Your task to perform on an android device: see creations saved in the google photos Image 0: 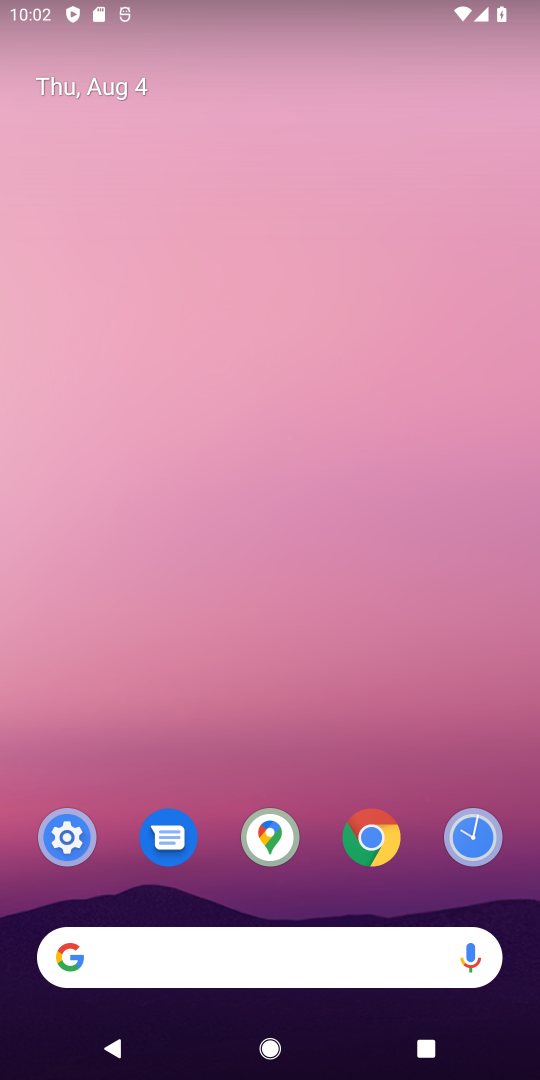
Step 0: drag from (315, 829) to (169, 21)
Your task to perform on an android device: see creations saved in the google photos Image 1: 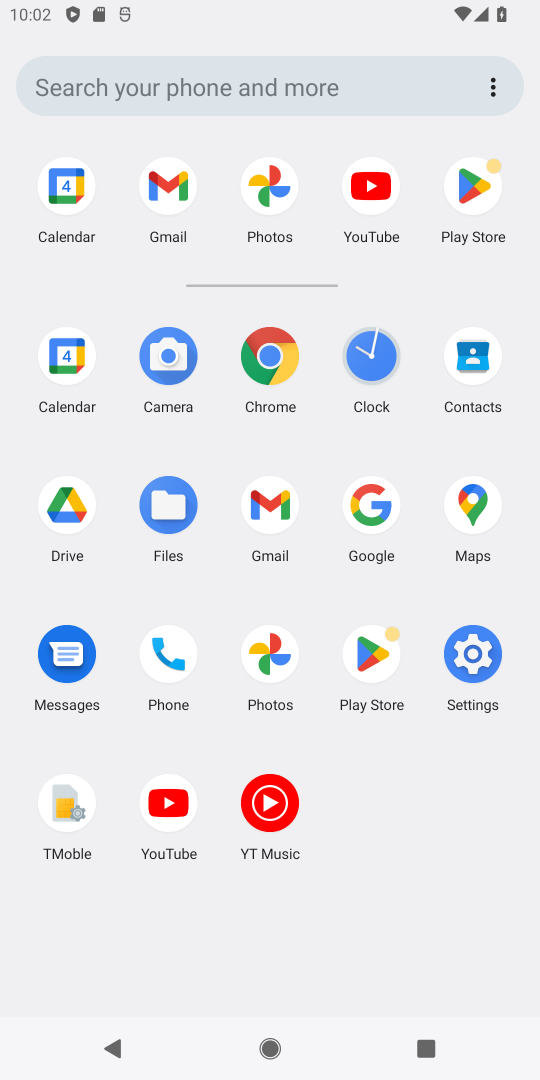
Step 1: click (278, 654)
Your task to perform on an android device: see creations saved in the google photos Image 2: 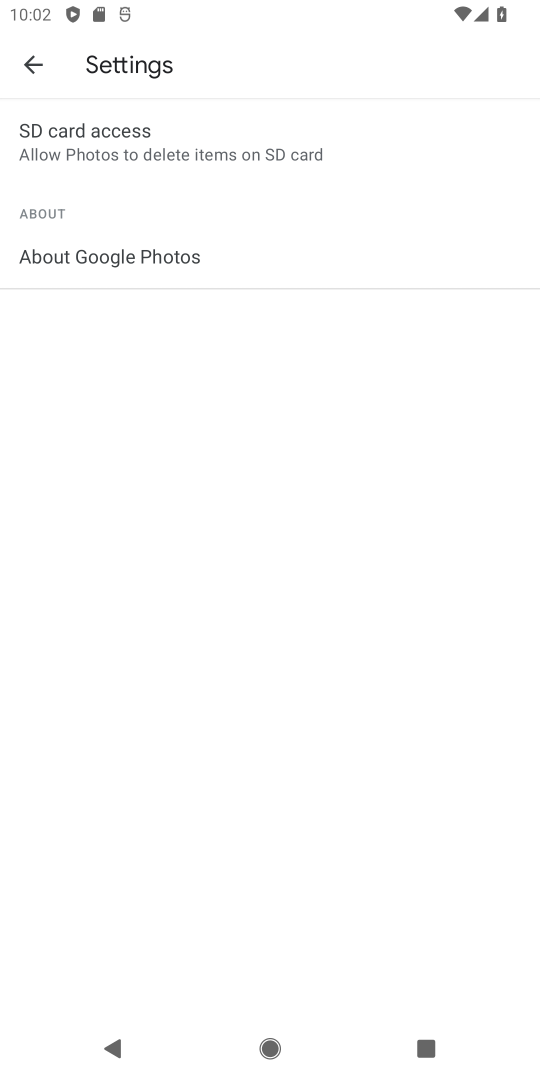
Step 2: press back button
Your task to perform on an android device: see creations saved in the google photos Image 3: 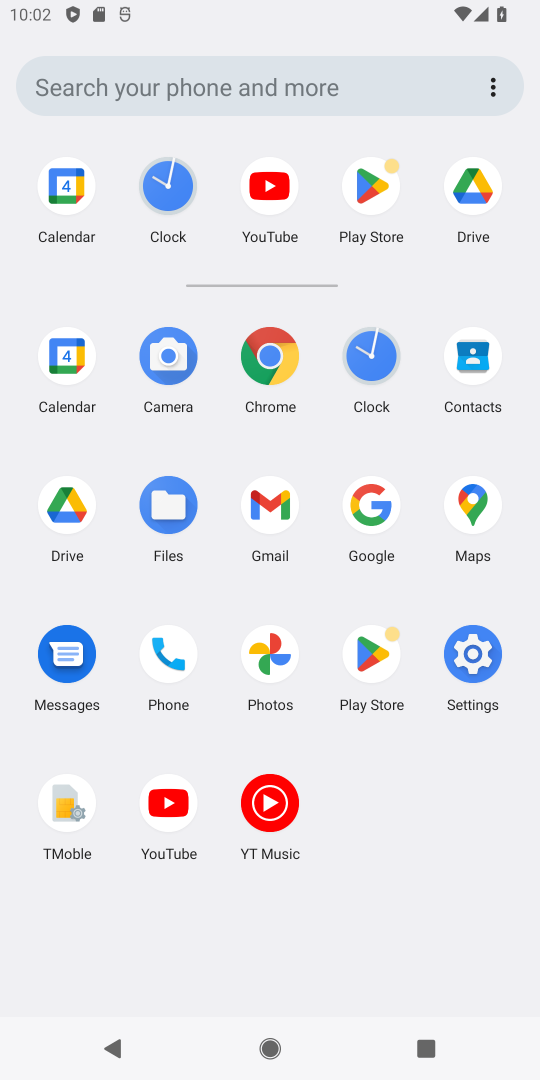
Step 3: click (268, 667)
Your task to perform on an android device: see creations saved in the google photos Image 4: 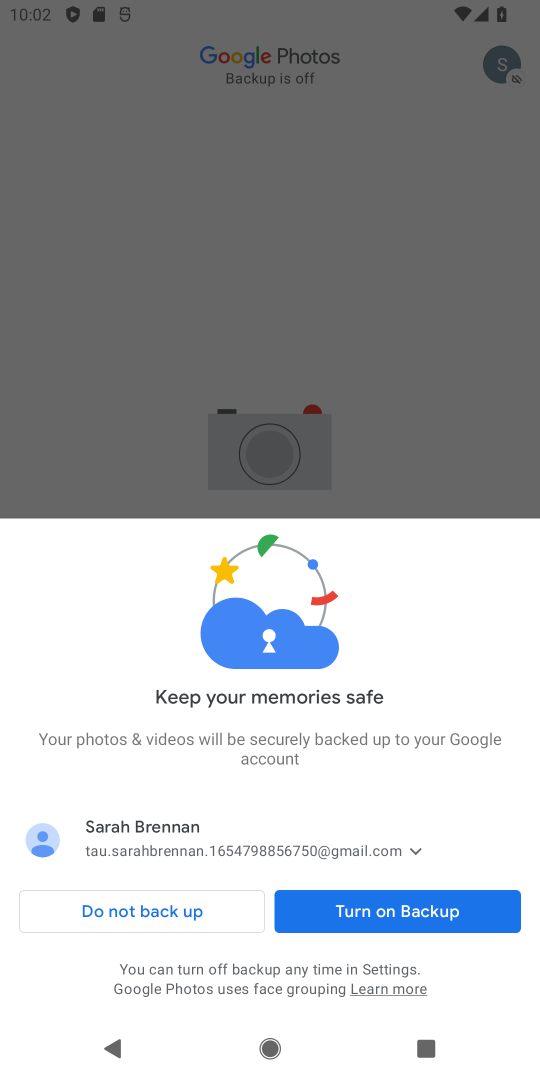
Step 4: click (462, 906)
Your task to perform on an android device: see creations saved in the google photos Image 5: 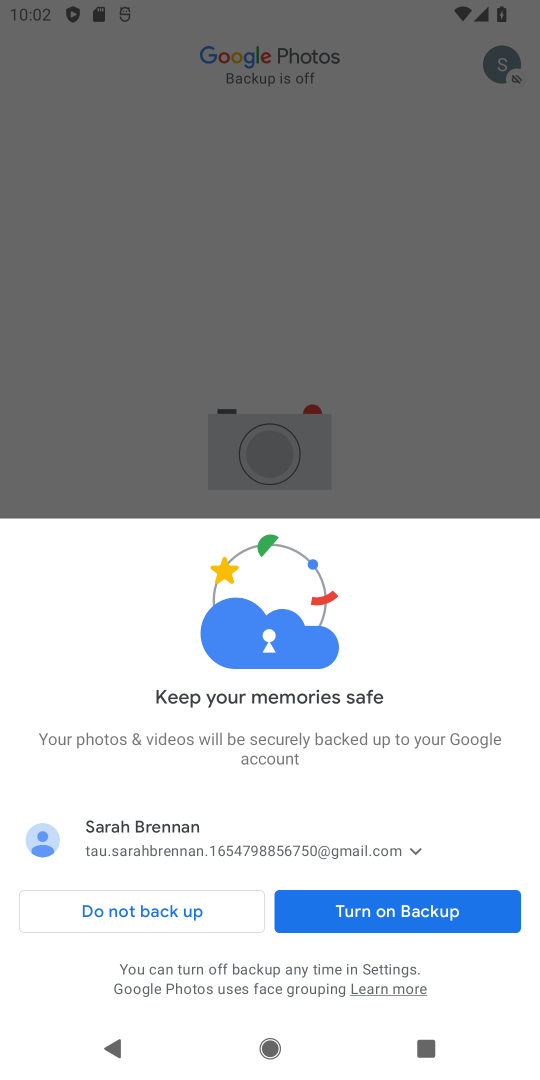
Step 5: click (418, 913)
Your task to perform on an android device: see creations saved in the google photos Image 6: 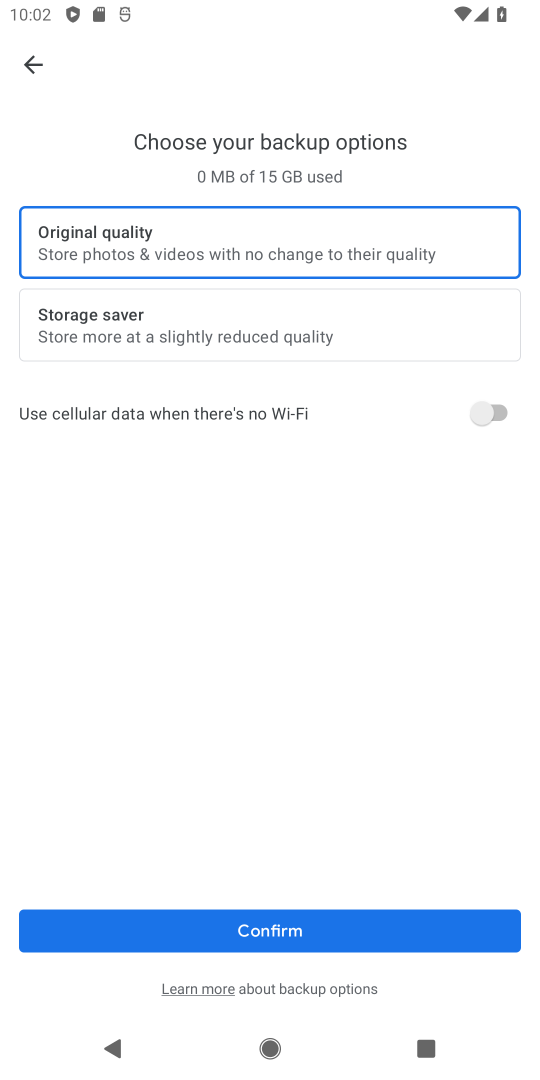
Step 6: click (257, 926)
Your task to perform on an android device: see creations saved in the google photos Image 7: 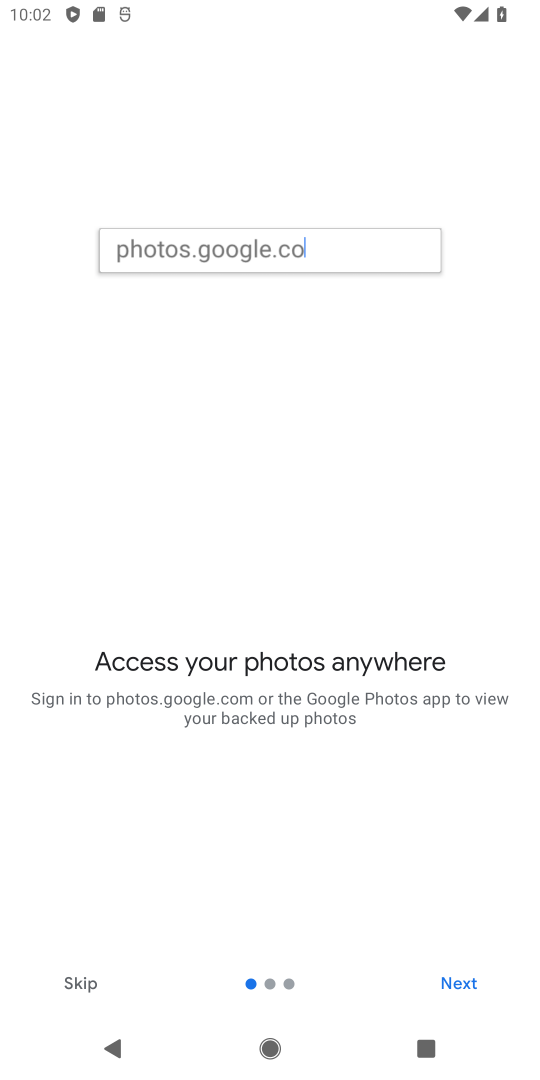
Step 7: click (467, 983)
Your task to perform on an android device: see creations saved in the google photos Image 8: 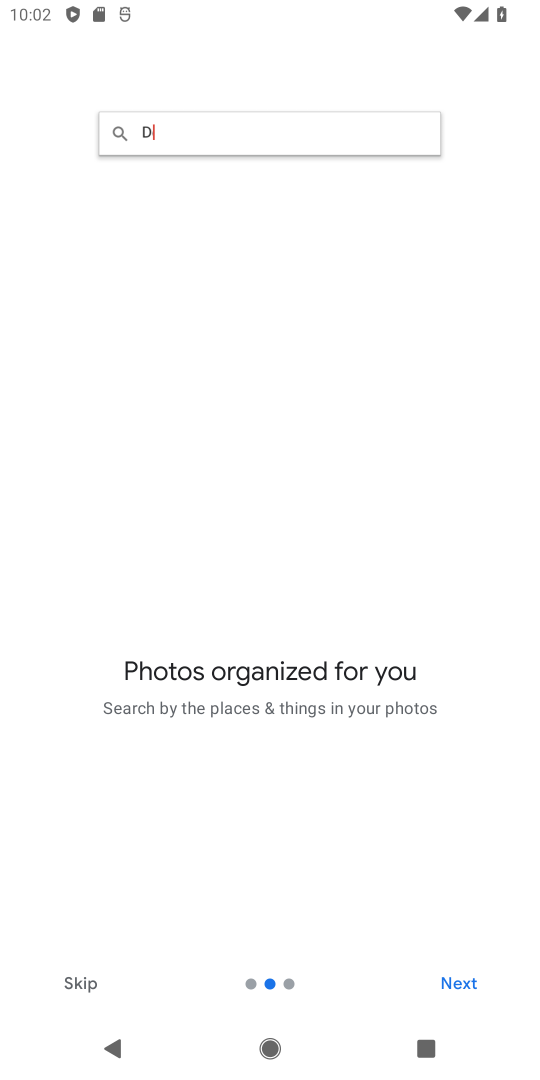
Step 8: click (467, 983)
Your task to perform on an android device: see creations saved in the google photos Image 9: 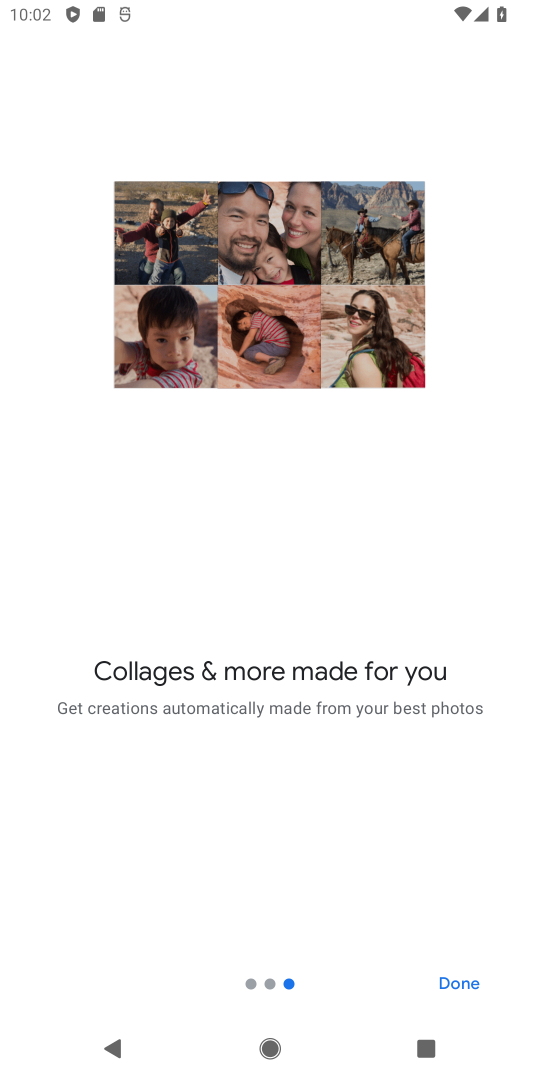
Step 9: click (467, 983)
Your task to perform on an android device: see creations saved in the google photos Image 10: 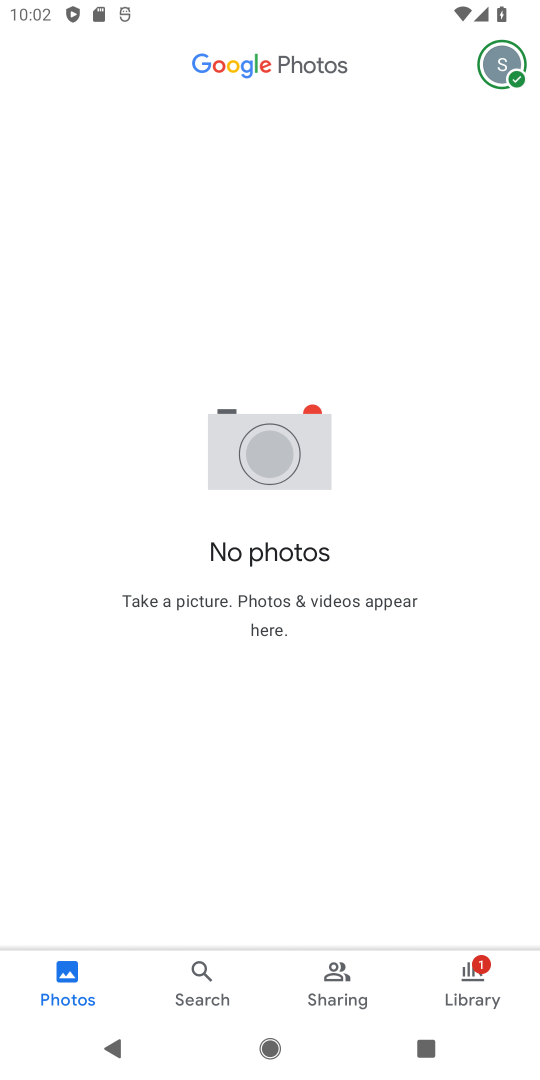
Step 10: click (185, 979)
Your task to perform on an android device: see creations saved in the google photos Image 11: 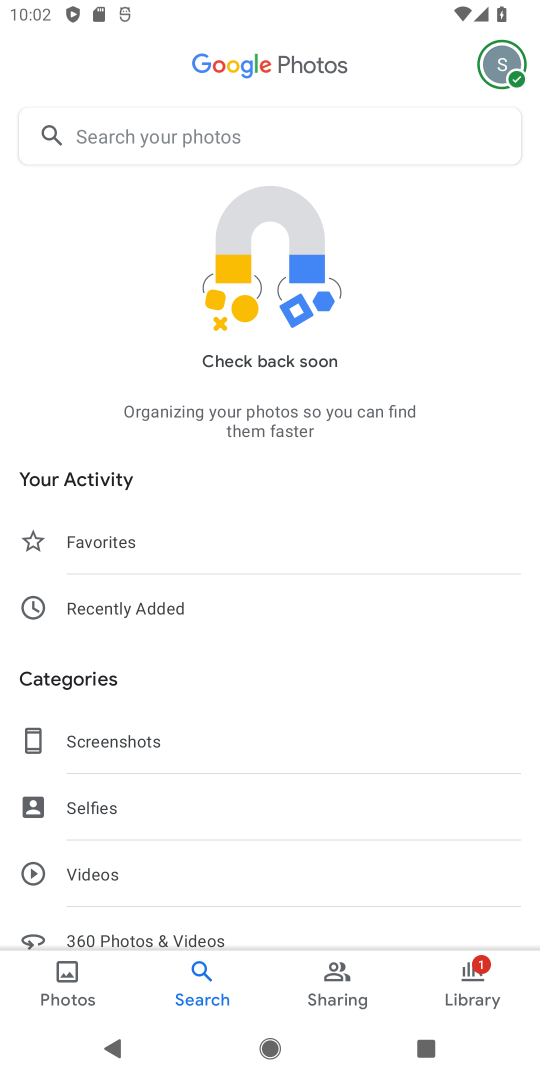
Step 11: drag from (177, 884) to (65, 106)
Your task to perform on an android device: see creations saved in the google photos Image 12: 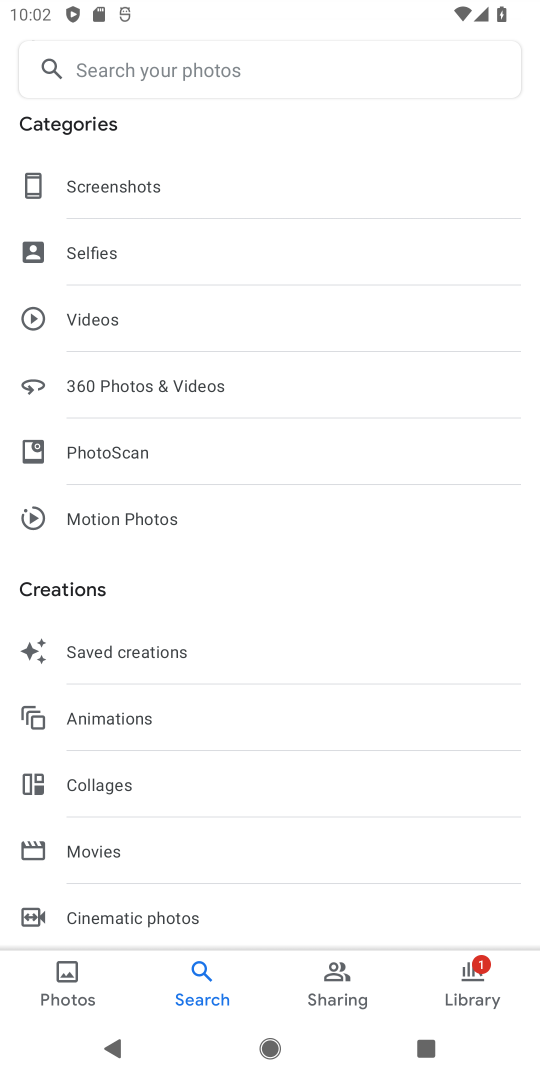
Step 12: click (123, 667)
Your task to perform on an android device: see creations saved in the google photos Image 13: 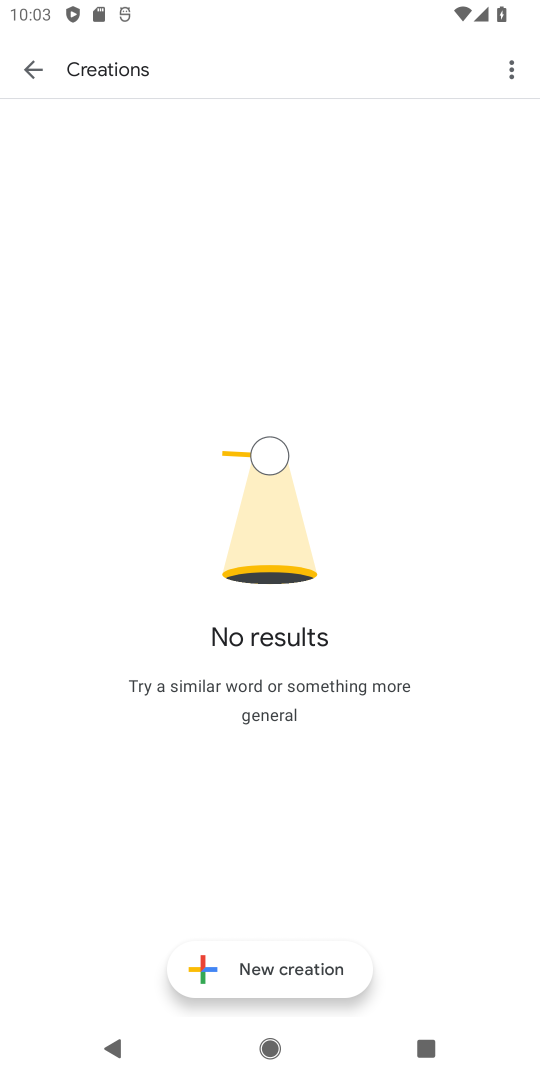
Step 13: task complete